Your task to perform on an android device: toggle pop-ups in chrome Image 0: 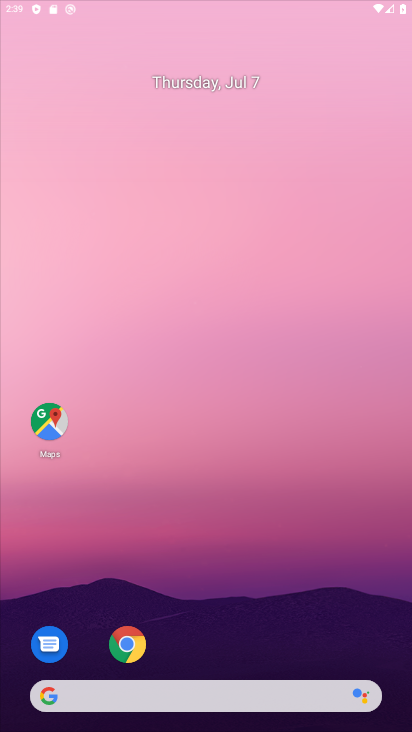
Step 0: press back button
Your task to perform on an android device: toggle pop-ups in chrome Image 1: 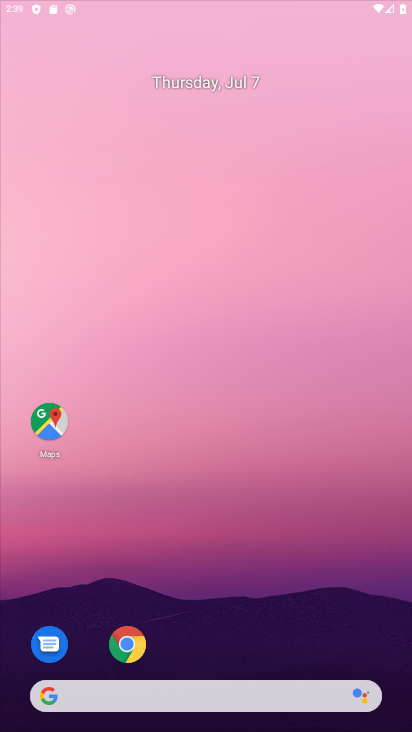
Step 1: click (386, 482)
Your task to perform on an android device: toggle pop-ups in chrome Image 2: 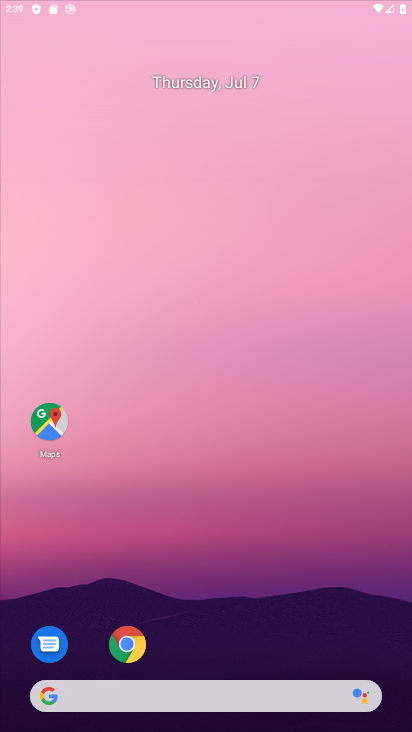
Step 2: drag from (17, 98) to (393, 417)
Your task to perform on an android device: toggle pop-ups in chrome Image 3: 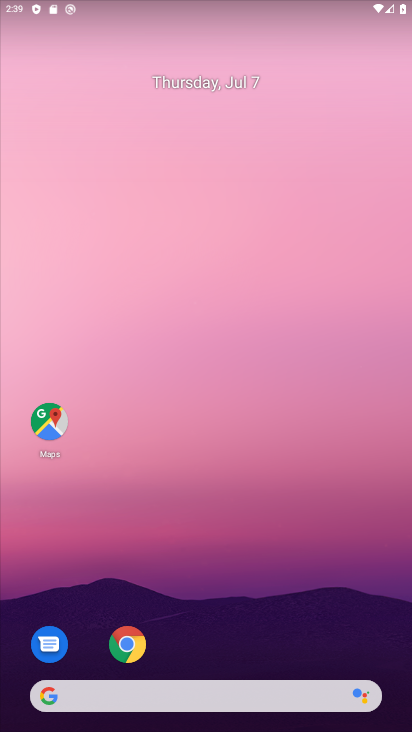
Step 3: drag from (41, 124) to (408, 421)
Your task to perform on an android device: toggle pop-ups in chrome Image 4: 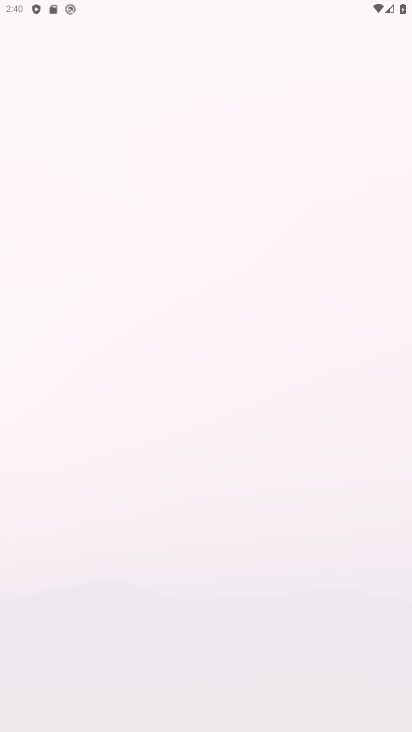
Step 4: drag from (163, 582) to (139, 315)
Your task to perform on an android device: toggle pop-ups in chrome Image 5: 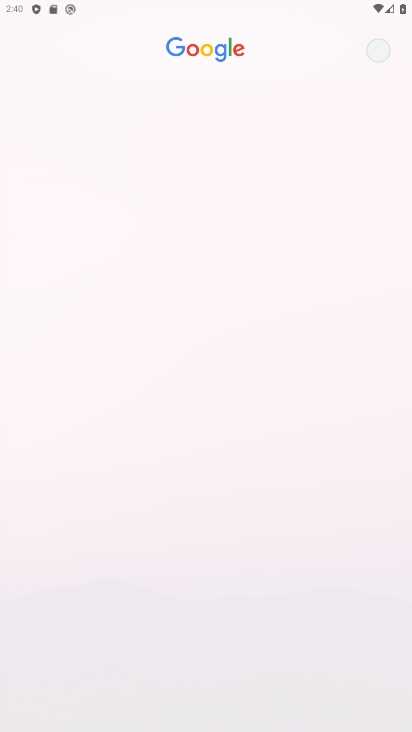
Step 5: drag from (411, 586) to (411, 542)
Your task to perform on an android device: toggle pop-ups in chrome Image 6: 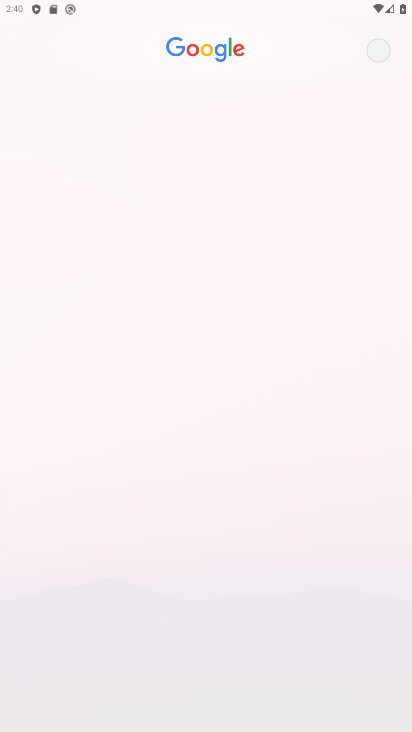
Step 6: drag from (148, 262) to (400, 464)
Your task to perform on an android device: toggle pop-ups in chrome Image 7: 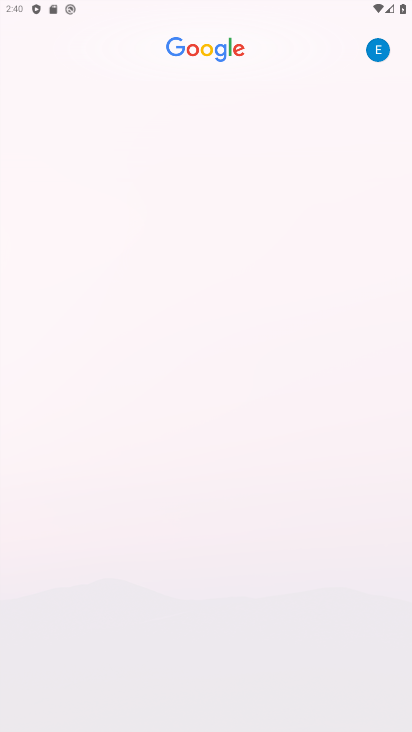
Step 7: drag from (121, 123) to (404, 285)
Your task to perform on an android device: toggle pop-ups in chrome Image 8: 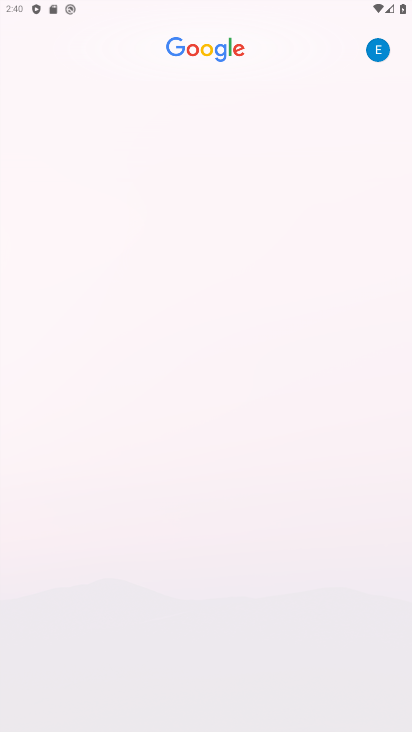
Step 8: click (270, 207)
Your task to perform on an android device: toggle pop-ups in chrome Image 9: 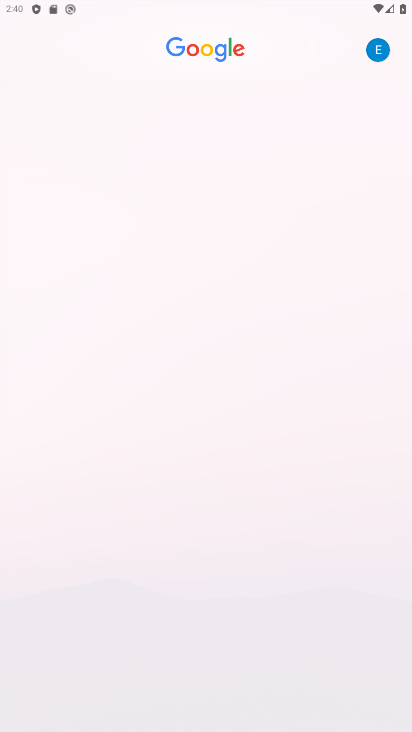
Step 9: press back button
Your task to perform on an android device: toggle pop-ups in chrome Image 10: 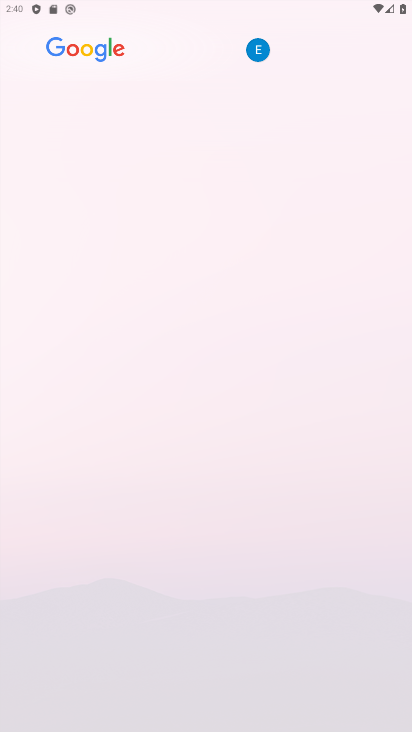
Step 10: press back button
Your task to perform on an android device: toggle pop-ups in chrome Image 11: 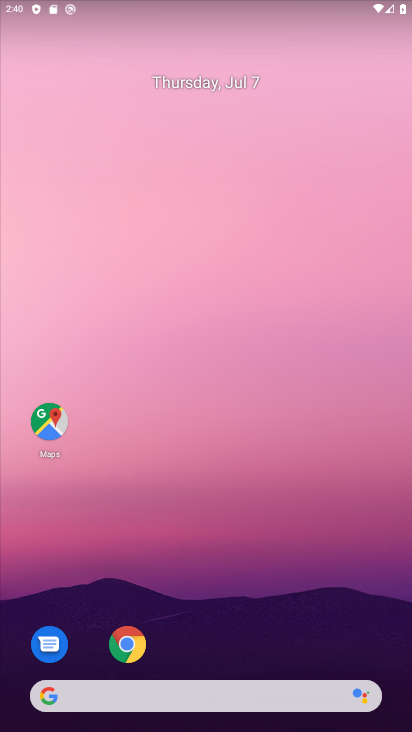
Step 11: press back button
Your task to perform on an android device: toggle pop-ups in chrome Image 12: 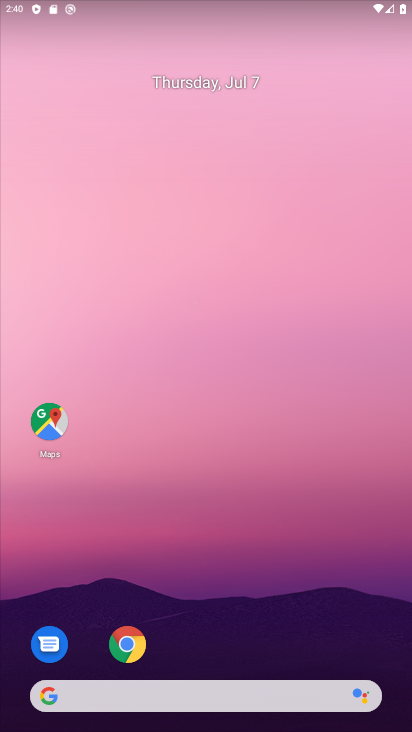
Step 12: press back button
Your task to perform on an android device: toggle pop-ups in chrome Image 13: 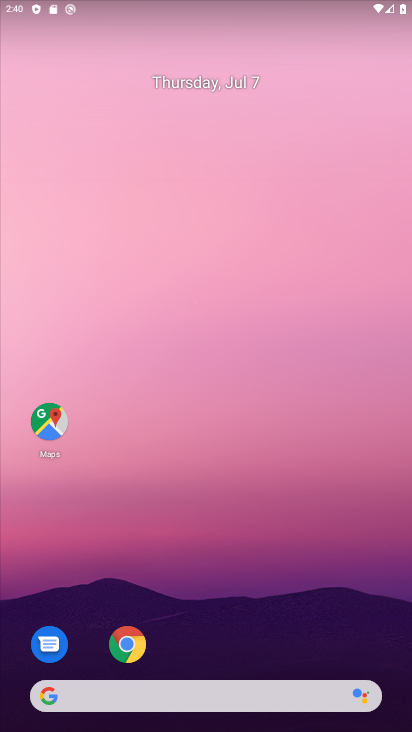
Step 13: drag from (253, 666) to (216, 43)
Your task to perform on an android device: toggle pop-ups in chrome Image 14: 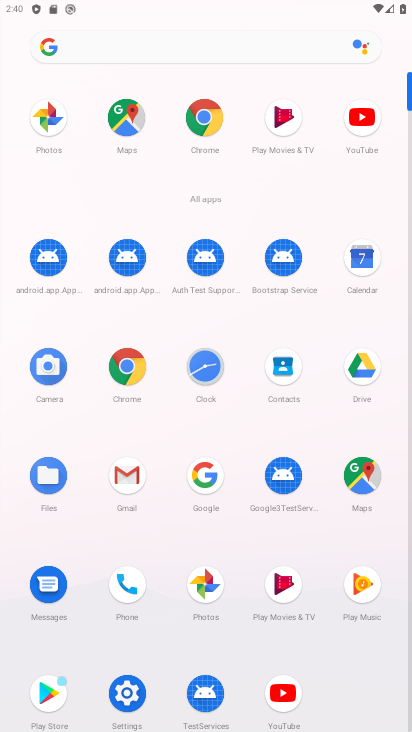
Step 14: click (134, 368)
Your task to perform on an android device: toggle pop-ups in chrome Image 15: 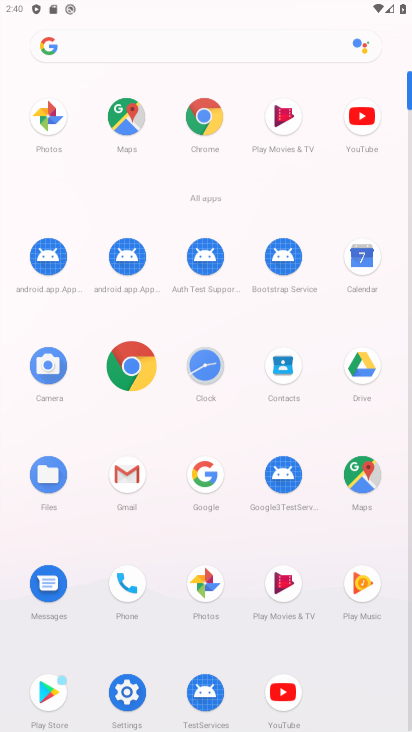
Step 15: click (134, 369)
Your task to perform on an android device: toggle pop-ups in chrome Image 16: 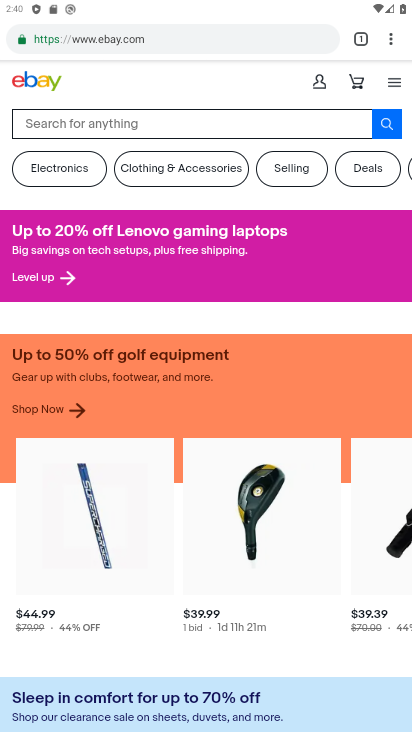
Step 16: click (387, 31)
Your task to perform on an android device: toggle pop-ups in chrome Image 17: 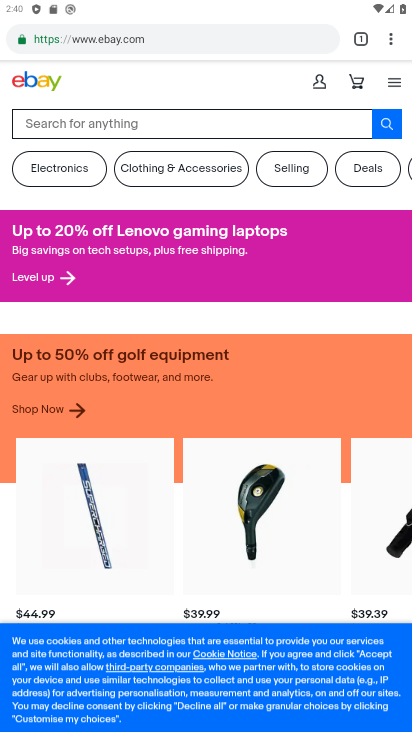
Step 17: click (388, 31)
Your task to perform on an android device: toggle pop-ups in chrome Image 18: 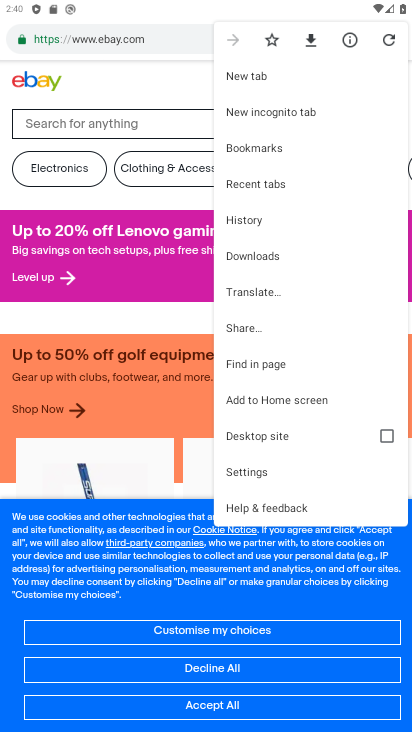
Step 18: click (247, 473)
Your task to perform on an android device: toggle pop-ups in chrome Image 19: 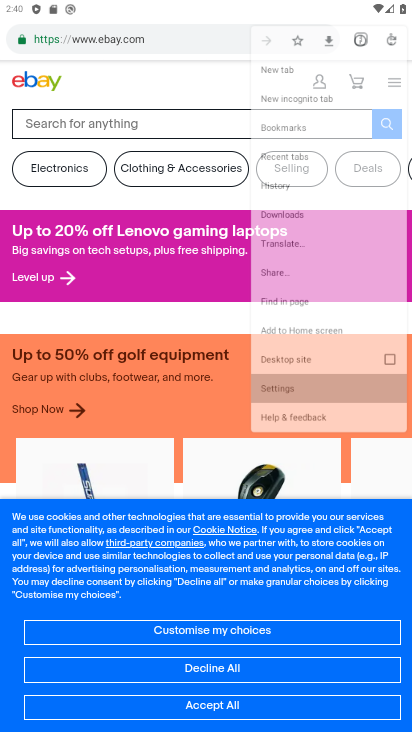
Step 19: click (247, 473)
Your task to perform on an android device: toggle pop-ups in chrome Image 20: 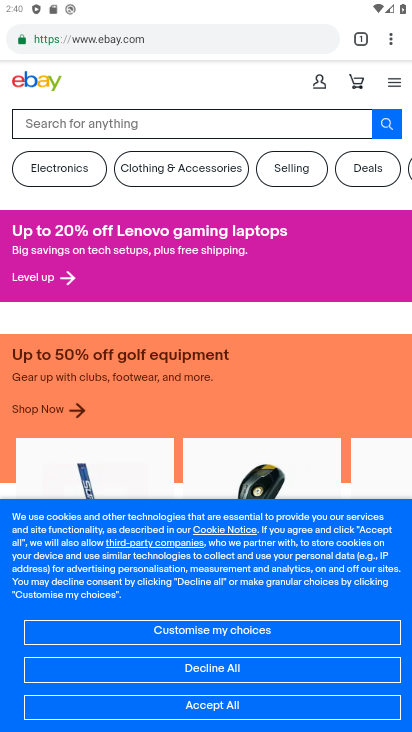
Step 20: click (247, 472)
Your task to perform on an android device: toggle pop-ups in chrome Image 21: 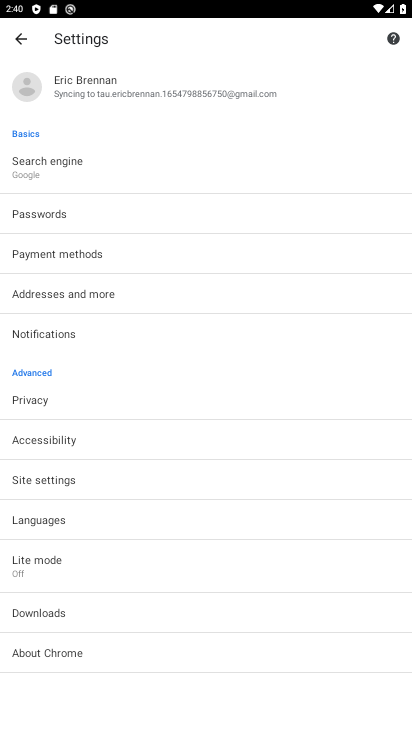
Step 21: click (47, 465)
Your task to perform on an android device: toggle pop-ups in chrome Image 22: 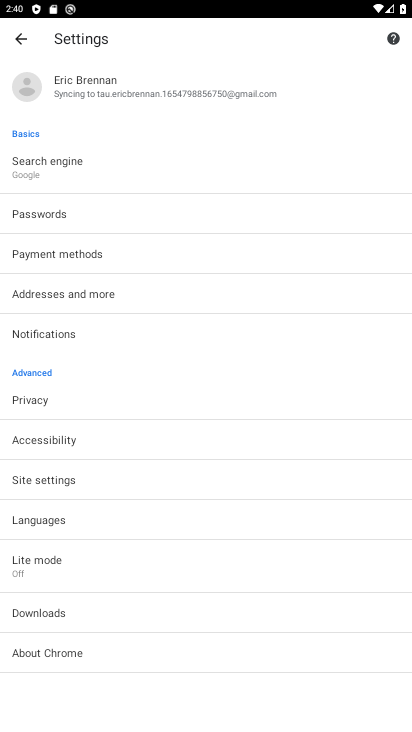
Step 22: click (47, 465)
Your task to perform on an android device: toggle pop-ups in chrome Image 23: 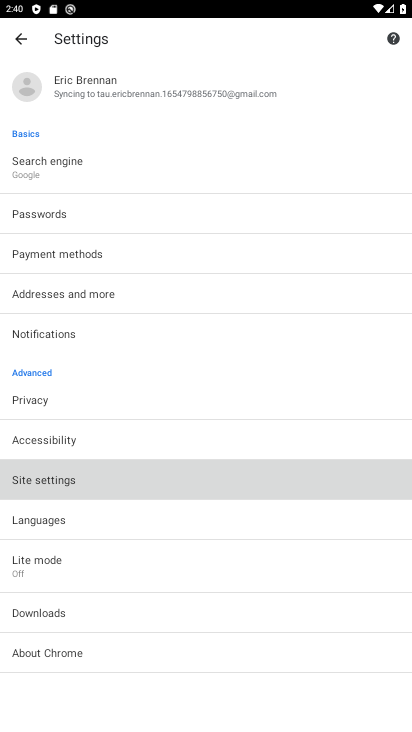
Step 23: click (47, 465)
Your task to perform on an android device: toggle pop-ups in chrome Image 24: 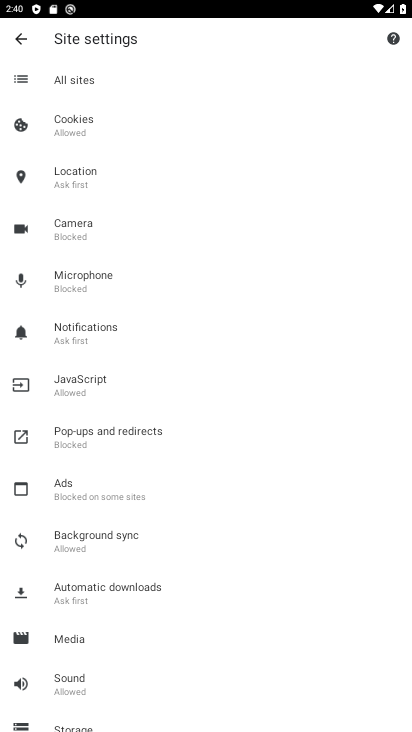
Step 24: click (87, 428)
Your task to perform on an android device: toggle pop-ups in chrome Image 25: 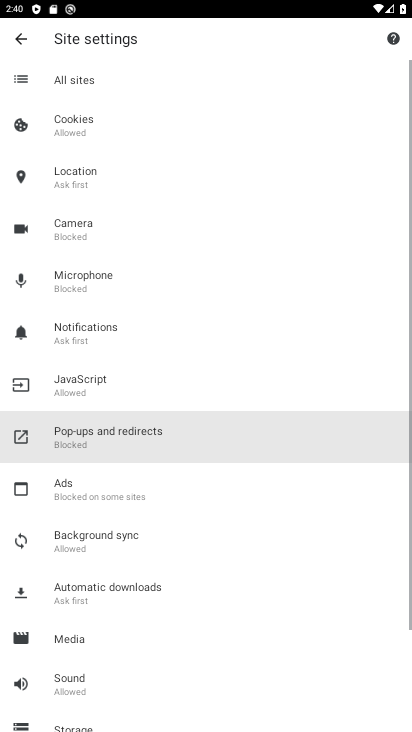
Step 25: click (87, 429)
Your task to perform on an android device: toggle pop-ups in chrome Image 26: 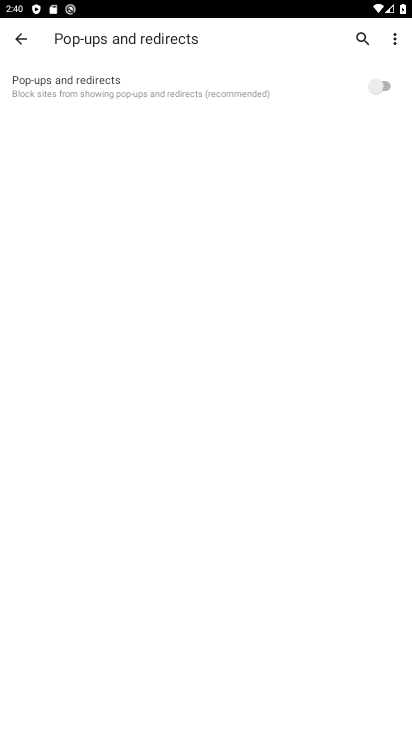
Step 26: click (376, 89)
Your task to perform on an android device: toggle pop-ups in chrome Image 27: 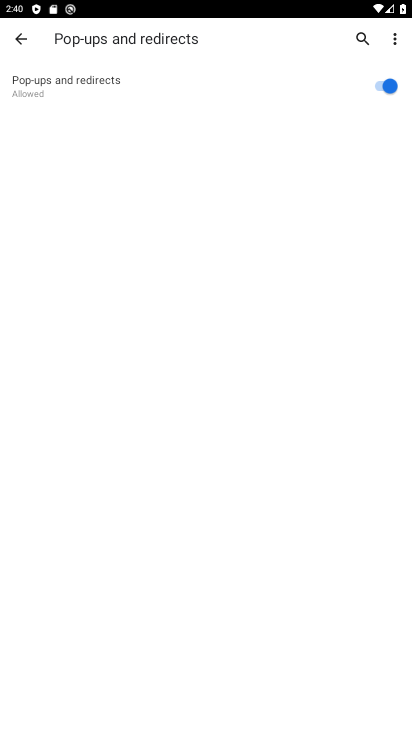
Step 27: task complete